Your task to perform on an android device: turn on sleep mode Image 0: 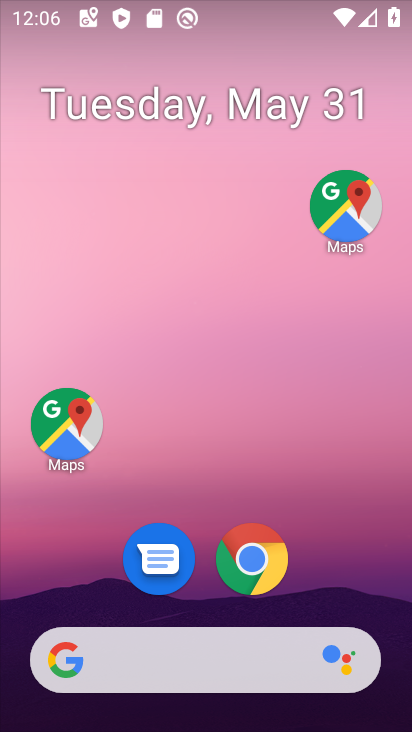
Step 0: drag from (355, 550) to (316, 118)
Your task to perform on an android device: turn on sleep mode Image 1: 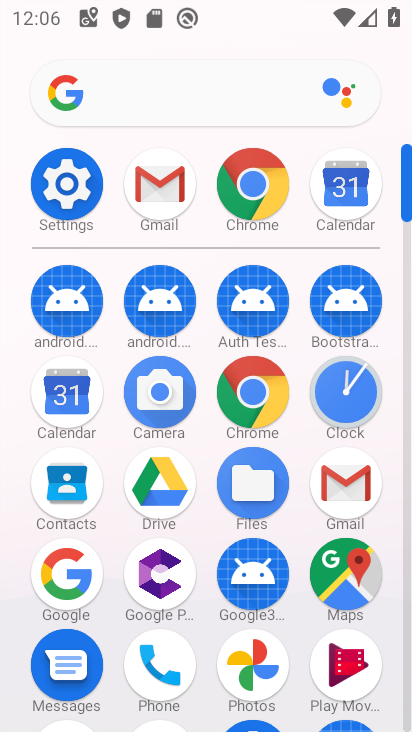
Step 1: click (79, 194)
Your task to perform on an android device: turn on sleep mode Image 2: 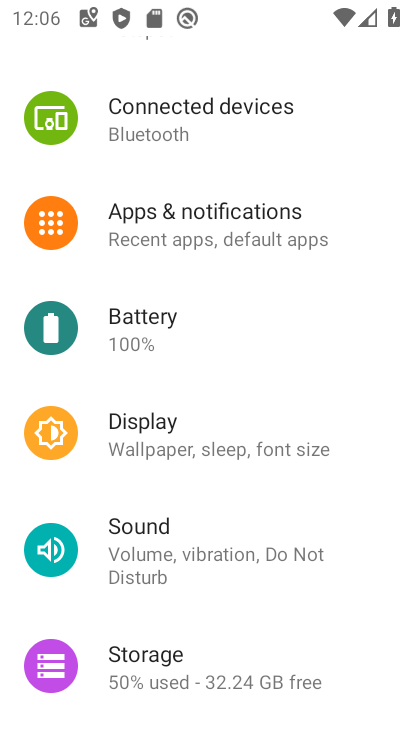
Step 2: drag from (200, 604) to (171, 654)
Your task to perform on an android device: turn on sleep mode Image 3: 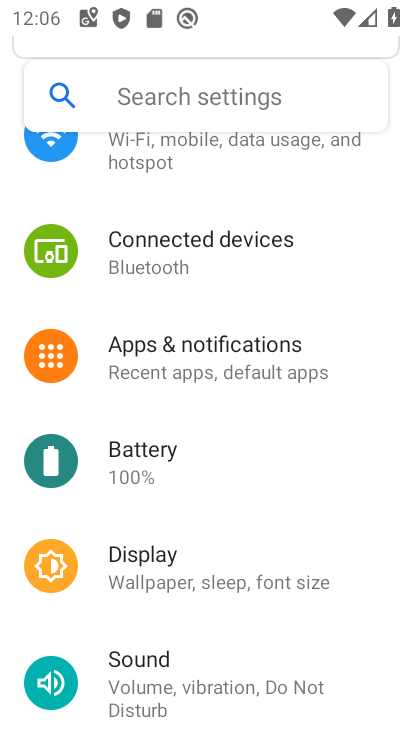
Step 3: click (194, 578)
Your task to perform on an android device: turn on sleep mode Image 4: 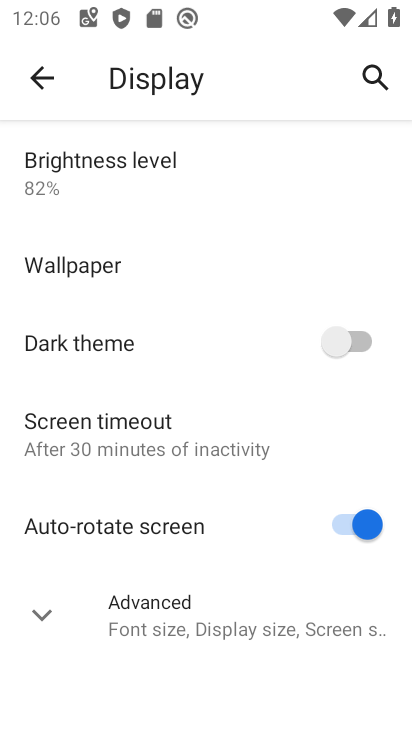
Step 4: task complete